Your task to perform on an android device: turn on priority inbox in the gmail app Image 0: 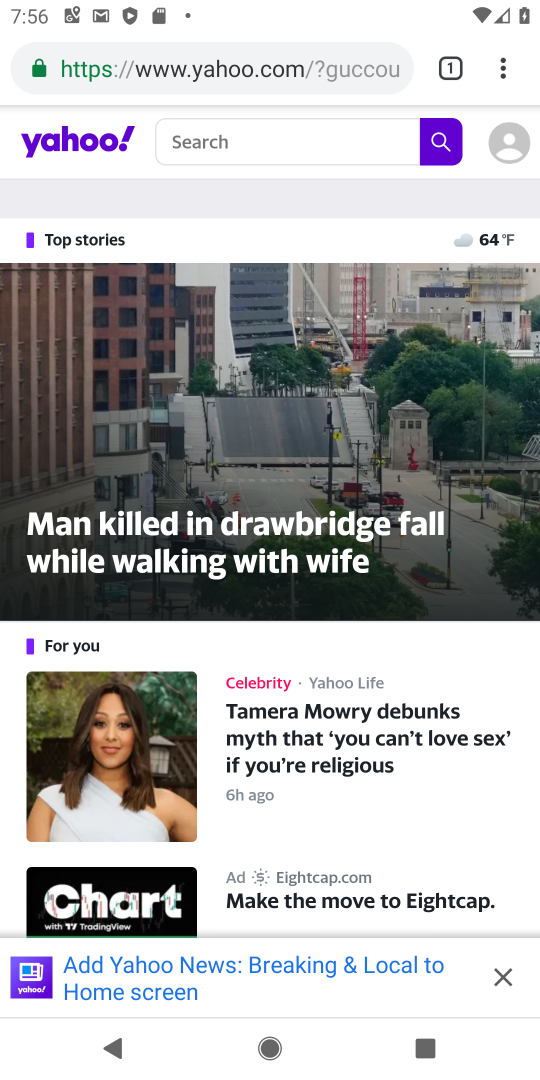
Step 0: press home button
Your task to perform on an android device: turn on priority inbox in the gmail app Image 1: 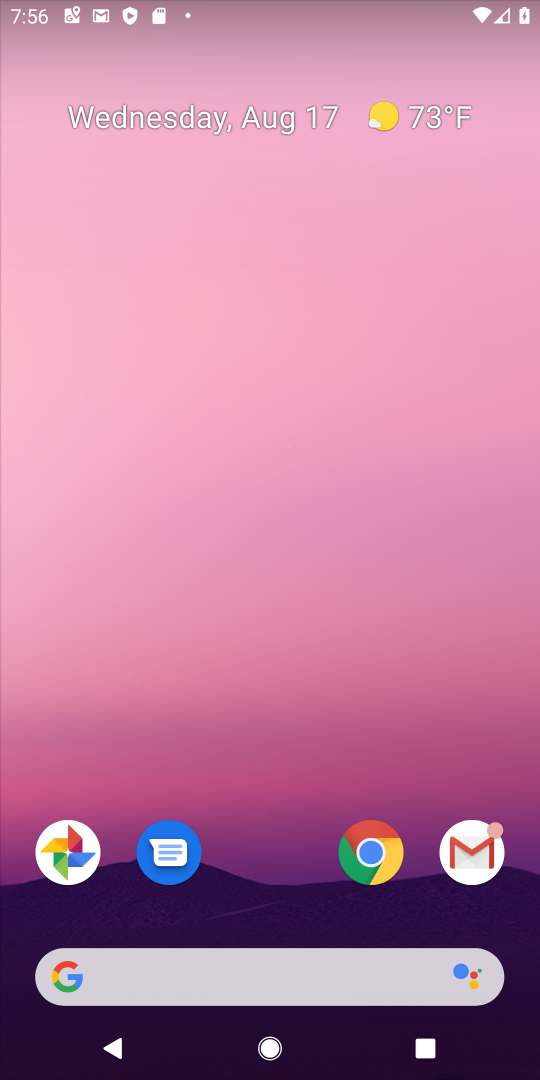
Step 1: click (464, 854)
Your task to perform on an android device: turn on priority inbox in the gmail app Image 2: 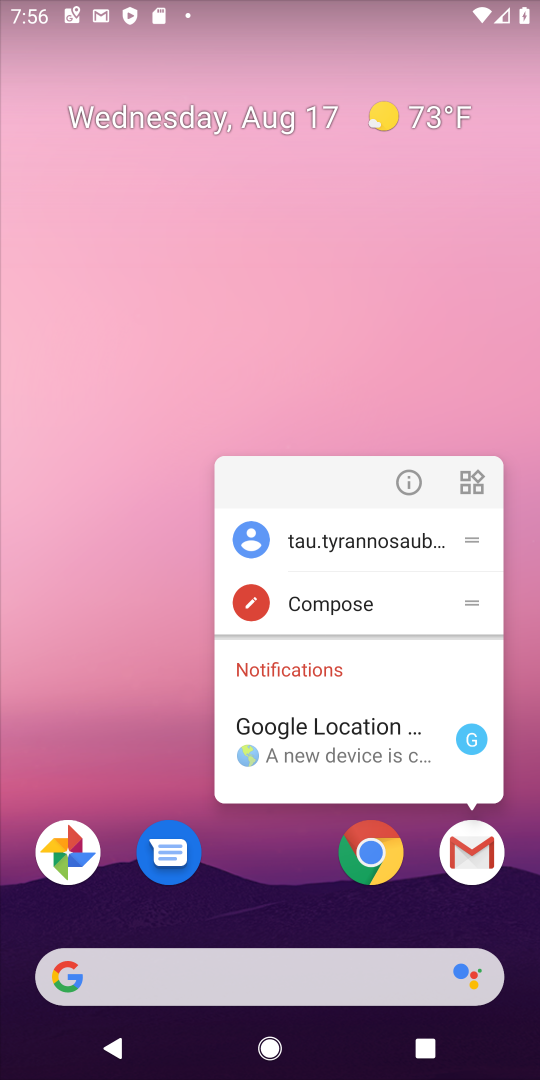
Step 2: click (462, 849)
Your task to perform on an android device: turn on priority inbox in the gmail app Image 3: 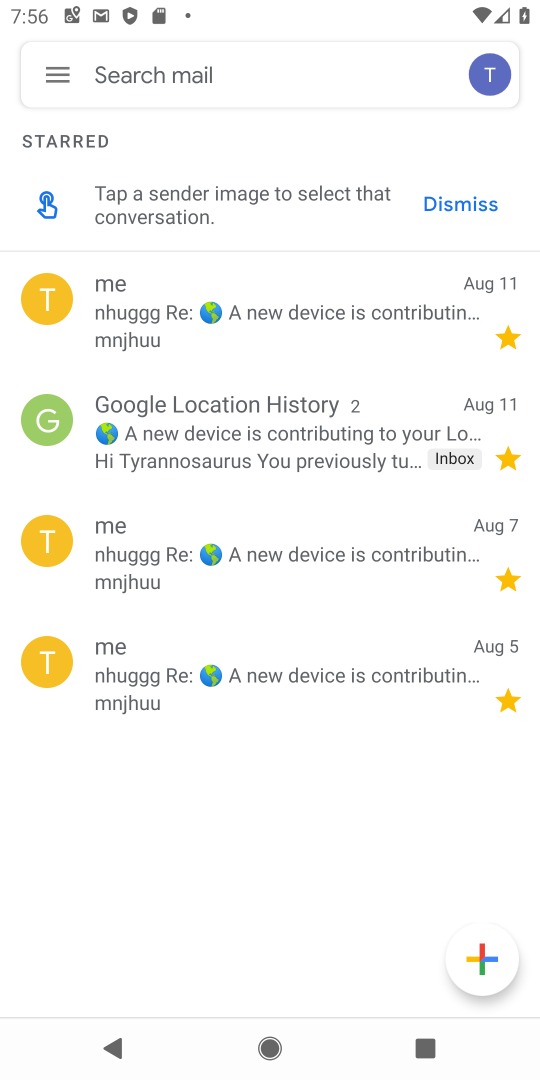
Step 3: click (52, 70)
Your task to perform on an android device: turn on priority inbox in the gmail app Image 4: 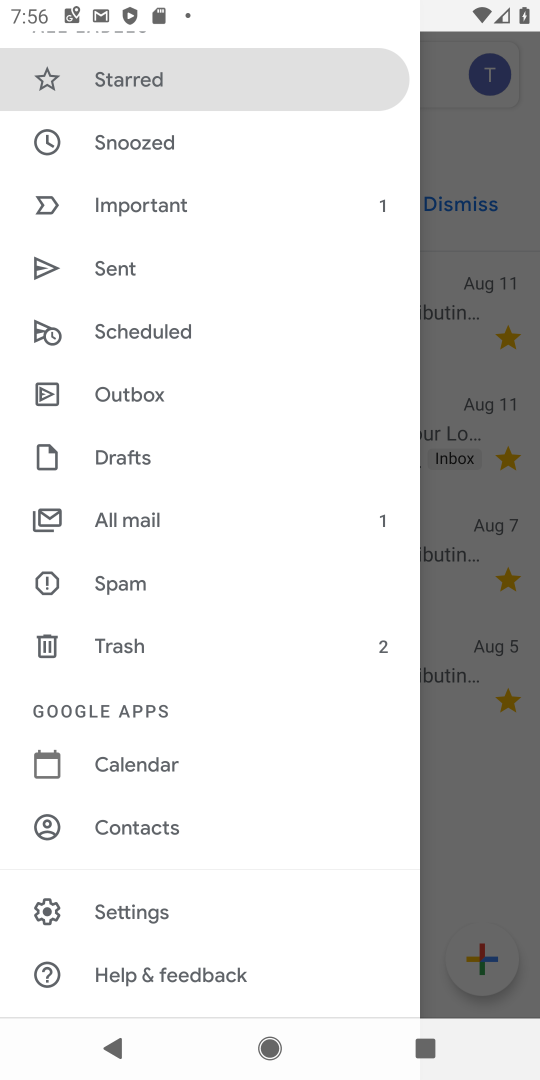
Step 4: click (153, 912)
Your task to perform on an android device: turn on priority inbox in the gmail app Image 5: 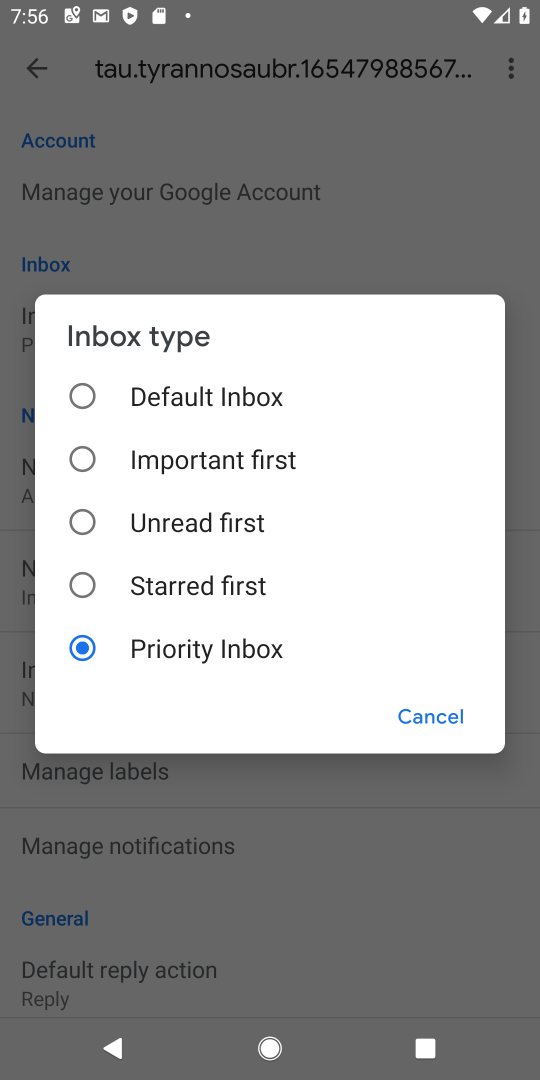
Step 5: task complete